Your task to perform on an android device: Go to battery settings Image 0: 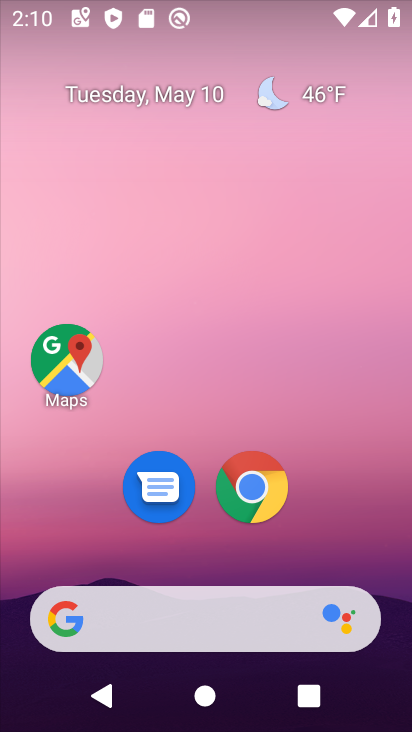
Step 0: drag from (322, 520) to (296, 179)
Your task to perform on an android device: Go to battery settings Image 1: 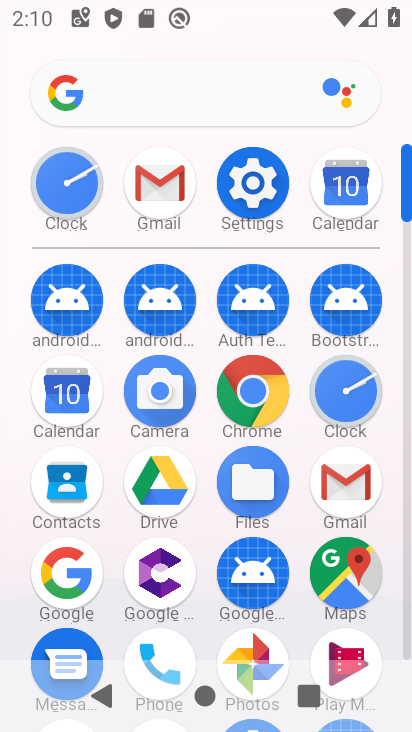
Step 1: drag from (294, 565) to (306, 384)
Your task to perform on an android device: Go to battery settings Image 2: 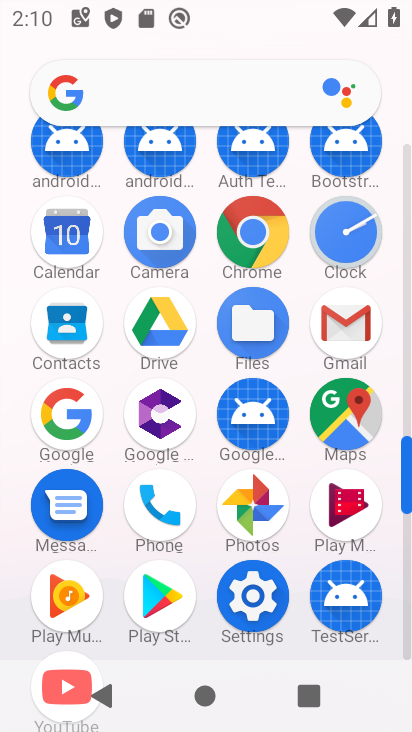
Step 2: click (253, 601)
Your task to perform on an android device: Go to battery settings Image 3: 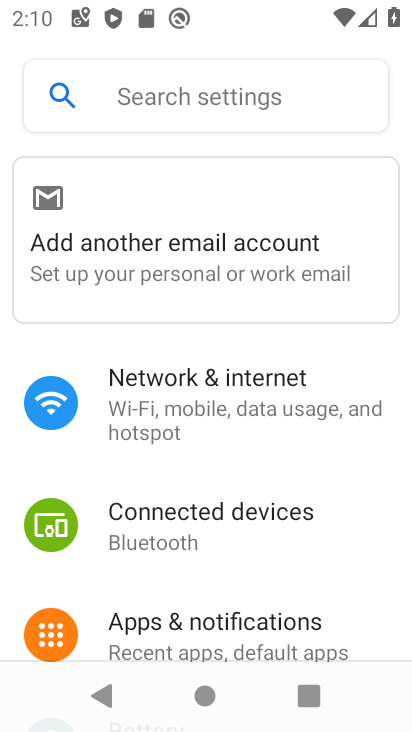
Step 3: drag from (251, 567) to (301, 166)
Your task to perform on an android device: Go to battery settings Image 4: 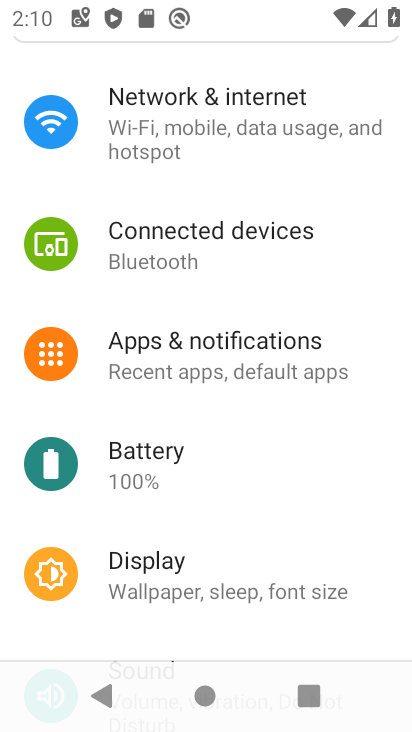
Step 4: click (186, 462)
Your task to perform on an android device: Go to battery settings Image 5: 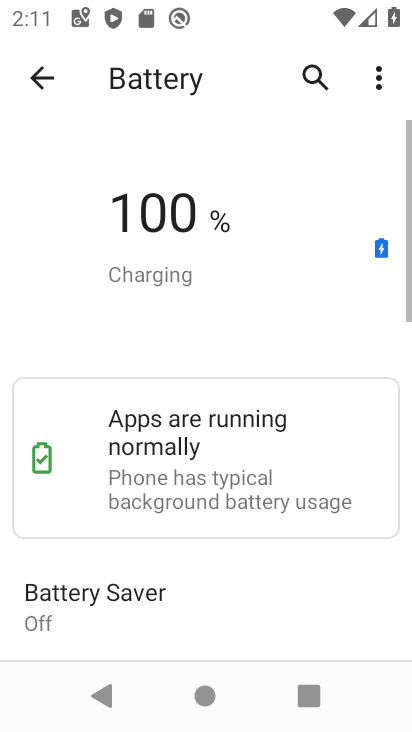
Step 5: task complete